Your task to perform on an android device: turn on data saver in the chrome app Image 0: 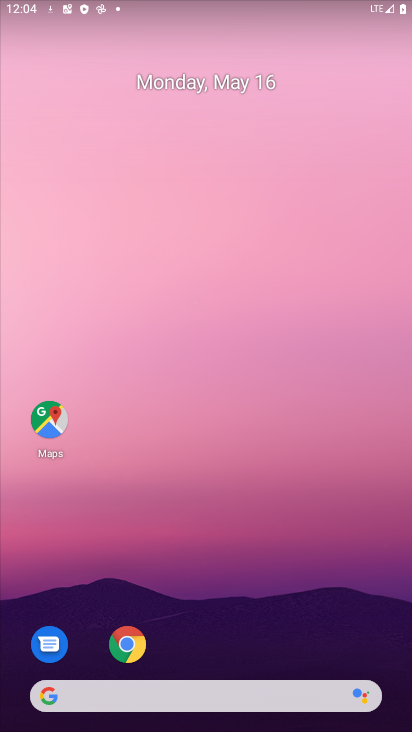
Step 0: drag from (223, 692) to (411, 231)
Your task to perform on an android device: turn on data saver in the chrome app Image 1: 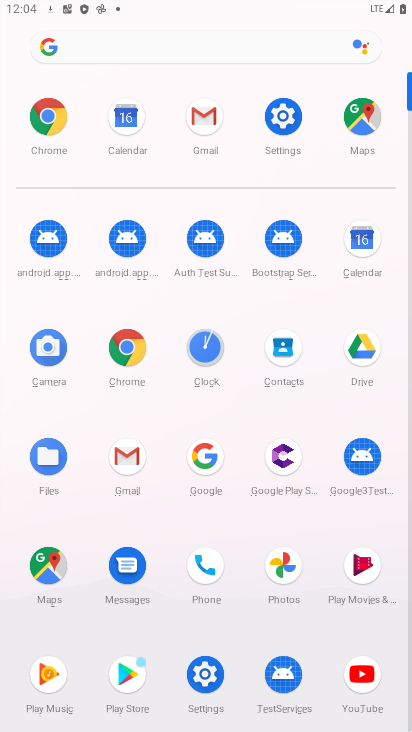
Step 1: click (57, 125)
Your task to perform on an android device: turn on data saver in the chrome app Image 2: 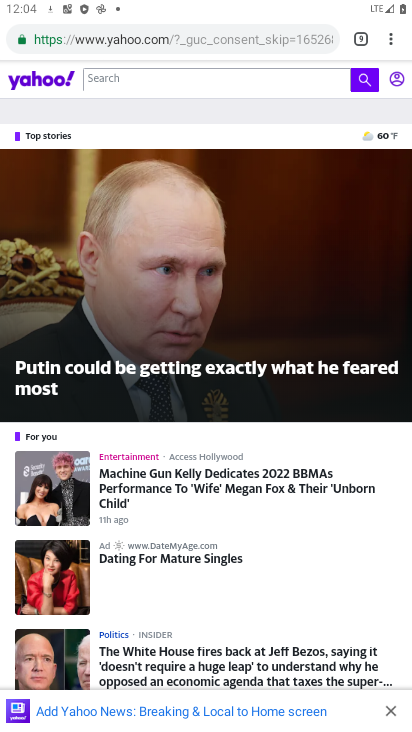
Step 2: click (387, 49)
Your task to perform on an android device: turn on data saver in the chrome app Image 3: 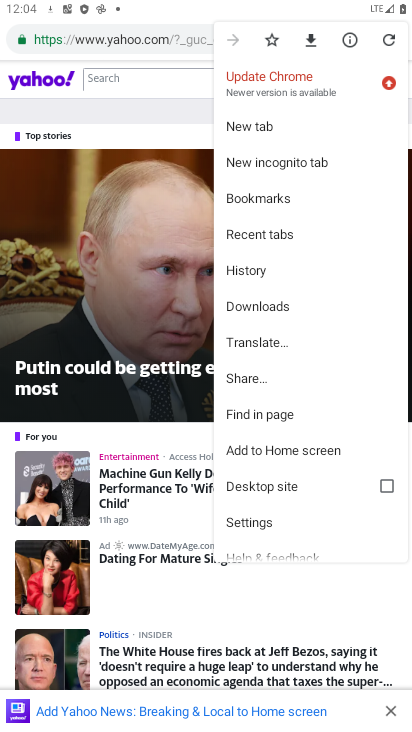
Step 3: click (269, 512)
Your task to perform on an android device: turn on data saver in the chrome app Image 4: 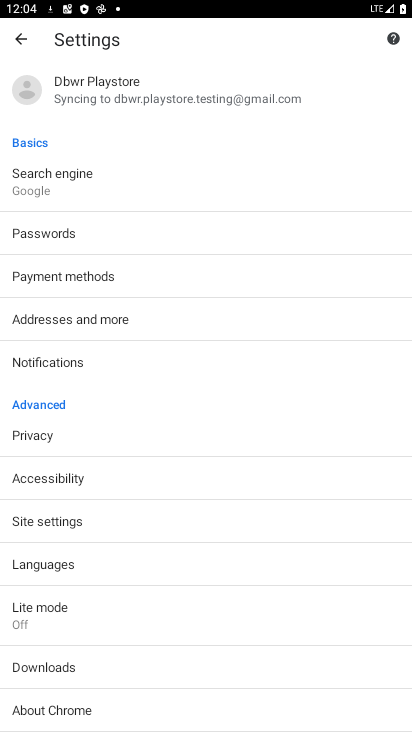
Step 4: click (60, 612)
Your task to perform on an android device: turn on data saver in the chrome app Image 5: 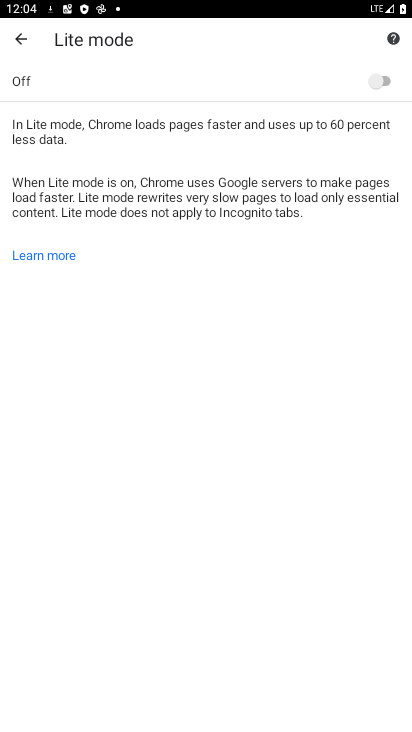
Step 5: task complete